Your task to perform on an android device: Do I have any events this weekend? Image 0: 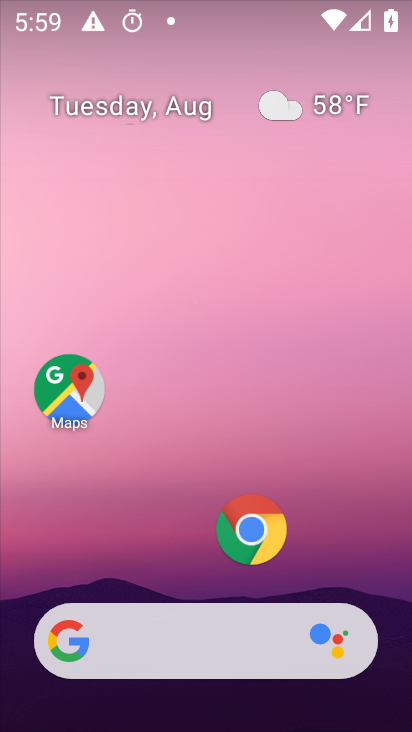
Step 0: drag from (191, 548) to (188, 215)
Your task to perform on an android device: Do I have any events this weekend? Image 1: 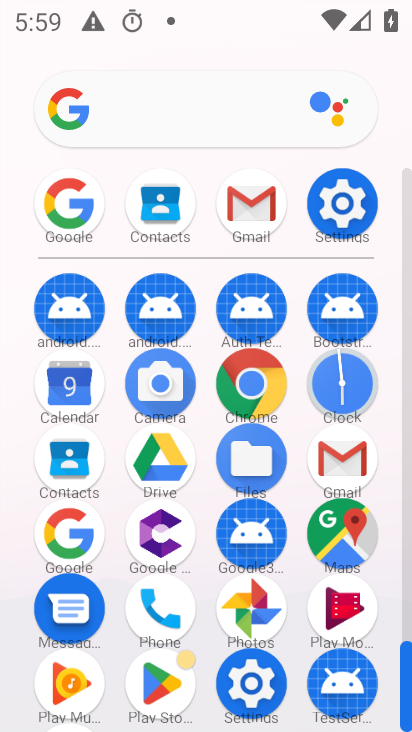
Step 1: click (92, 388)
Your task to perform on an android device: Do I have any events this weekend? Image 2: 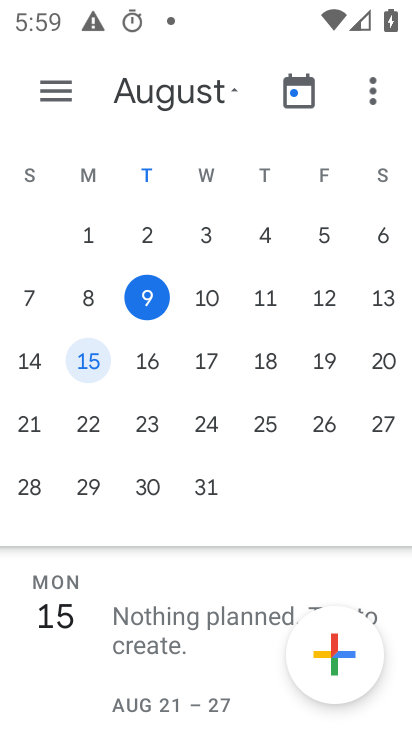
Step 2: click (377, 311)
Your task to perform on an android device: Do I have any events this weekend? Image 3: 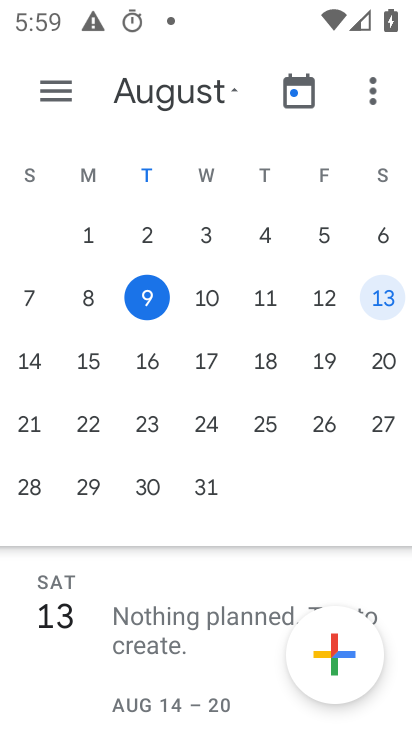
Step 3: task complete